Your task to perform on an android device: add a contact in the contacts app Image 0: 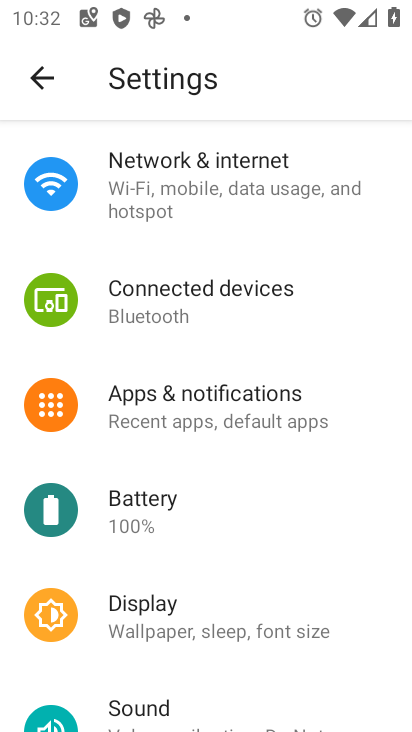
Step 0: drag from (279, 638) to (325, 251)
Your task to perform on an android device: add a contact in the contacts app Image 1: 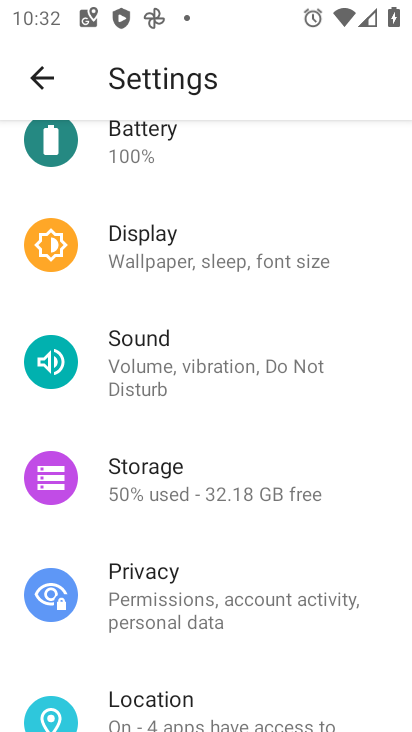
Step 1: press home button
Your task to perform on an android device: add a contact in the contacts app Image 2: 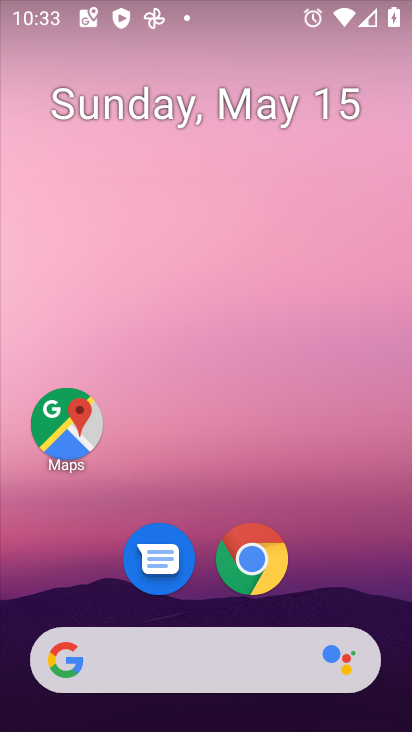
Step 2: drag from (322, 551) to (308, 126)
Your task to perform on an android device: add a contact in the contacts app Image 3: 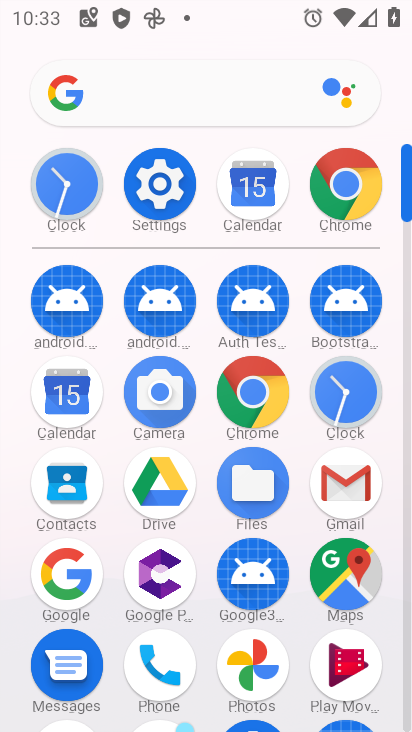
Step 3: click (183, 659)
Your task to perform on an android device: add a contact in the contacts app Image 4: 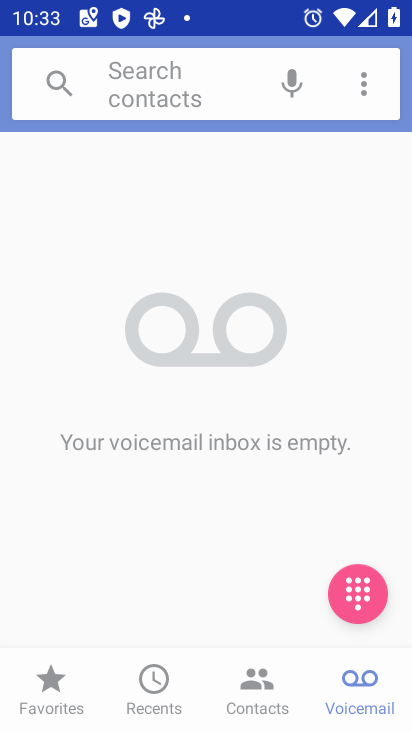
Step 4: press home button
Your task to perform on an android device: add a contact in the contacts app Image 5: 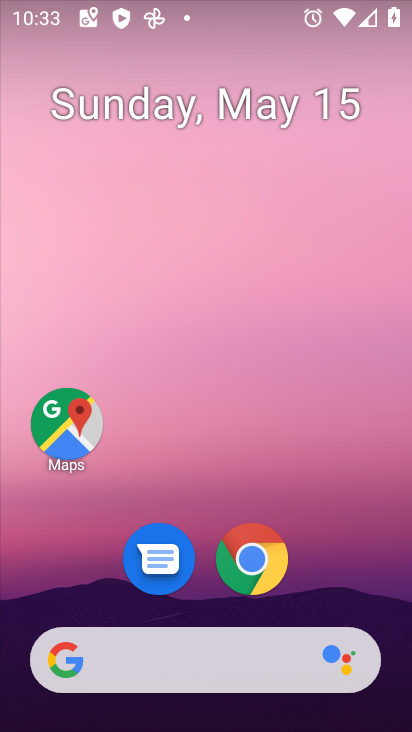
Step 5: drag from (342, 608) to (385, 234)
Your task to perform on an android device: add a contact in the contacts app Image 6: 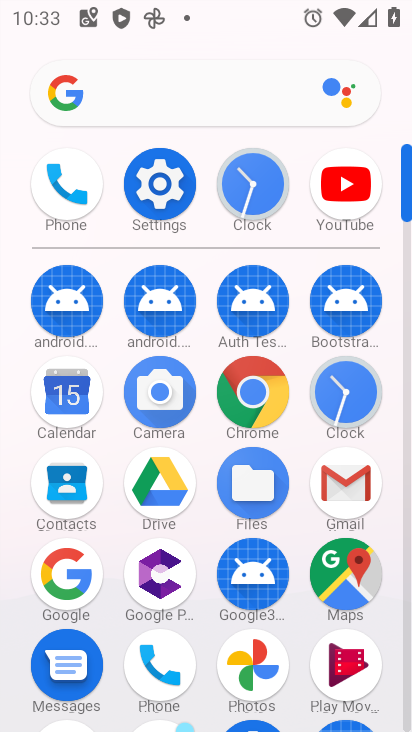
Step 6: click (73, 470)
Your task to perform on an android device: add a contact in the contacts app Image 7: 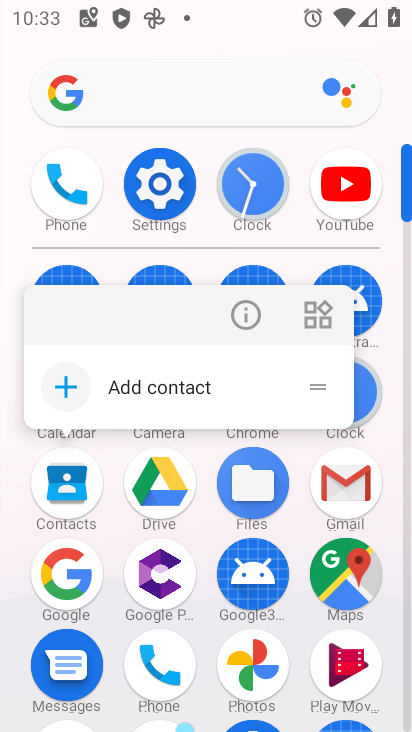
Step 7: click (172, 380)
Your task to perform on an android device: add a contact in the contacts app Image 8: 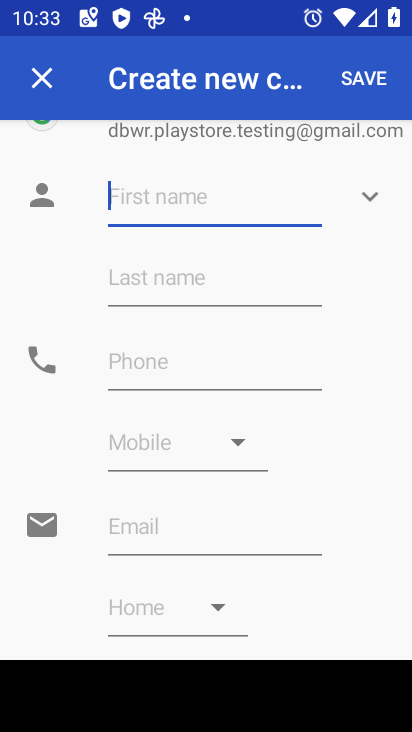
Step 8: type "csdf"
Your task to perform on an android device: add a contact in the contacts app Image 9: 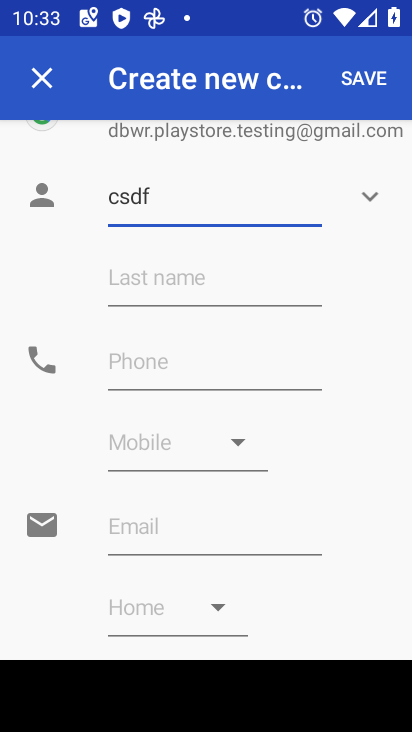
Step 9: click (223, 287)
Your task to perform on an android device: add a contact in the contacts app Image 10: 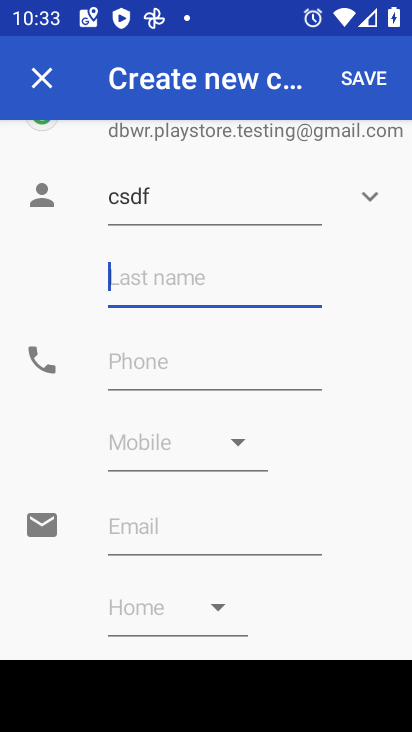
Step 10: type "sddfsd"
Your task to perform on an android device: add a contact in the contacts app Image 11: 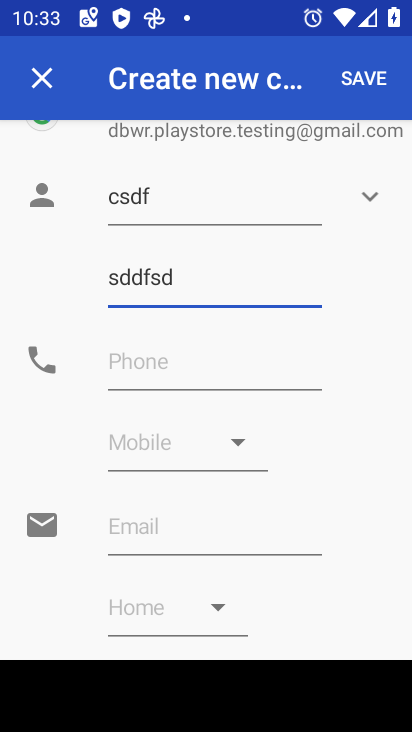
Step 11: click (238, 347)
Your task to perform on an android device: add a contact in the contacts app Image 12: 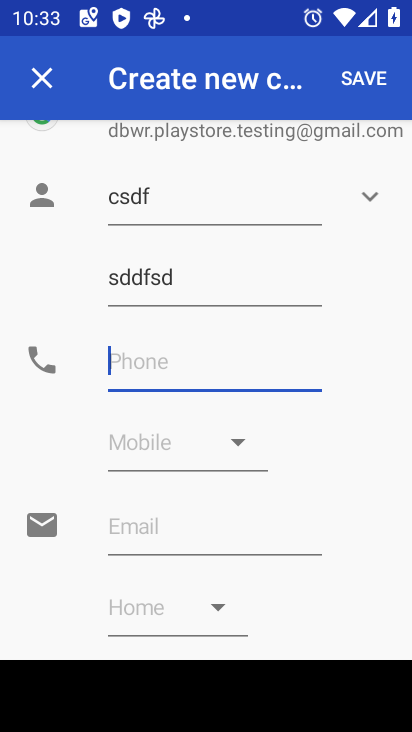
Step 12: type "4354353453"
Your task to perform on an android device: add a contact in the contacts app Image 13: 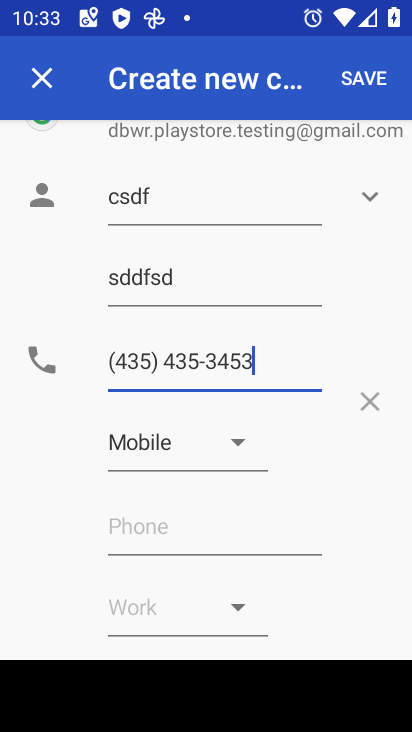
Step 13: click (357, 96)
Your task to perform on an android device: add a contact in the contacts app Image 14: 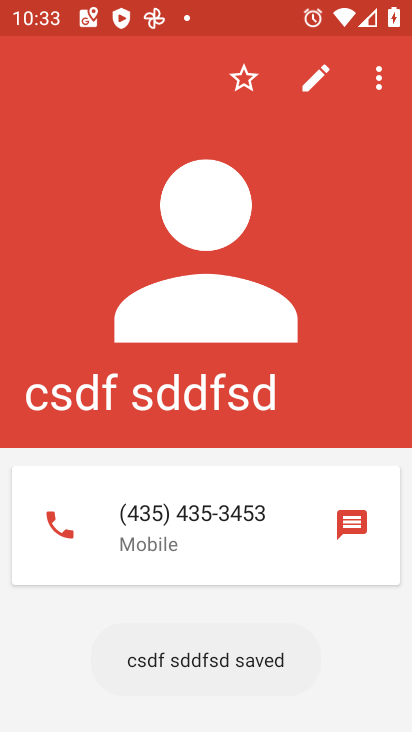
Step 14: task complete